Your task to perform on an android device: Do I have any events this weekend? Image 0: 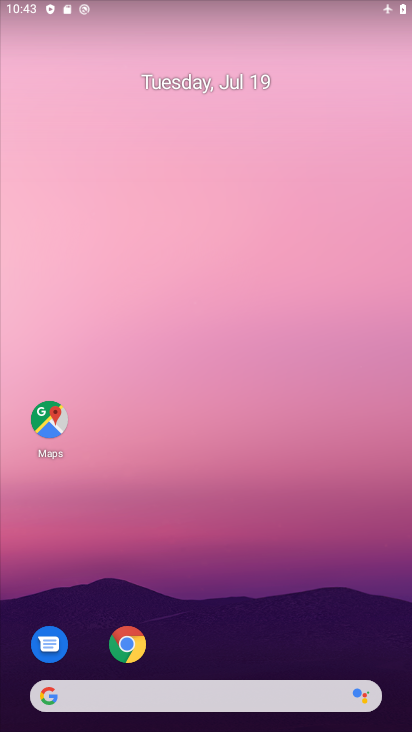
Step 0: drag from (267, 600) to (217, 105)
Your task to perform on an android device: Do I have any events this weekend? Image 1: 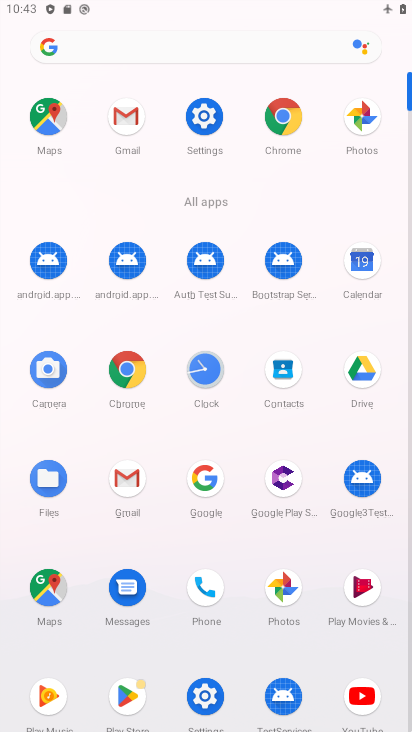
Step 1: click (360, 258)
Your task to perform on an android device: Do I have any events this weekend? Image 2: 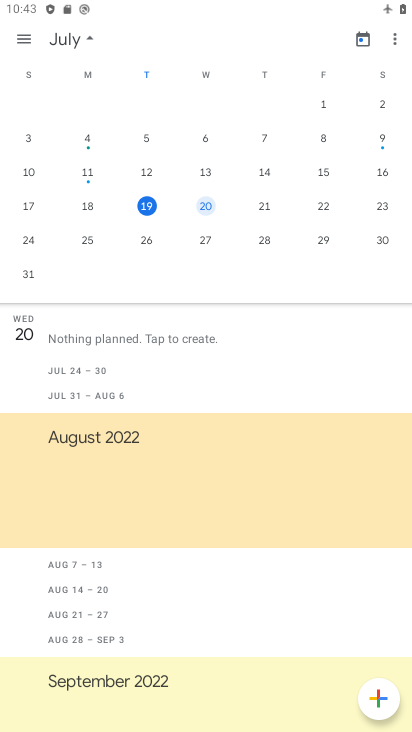
Step 2: click (21, 33)
Your task to perform on an android device: Do I have any events this weekend? Image 3: 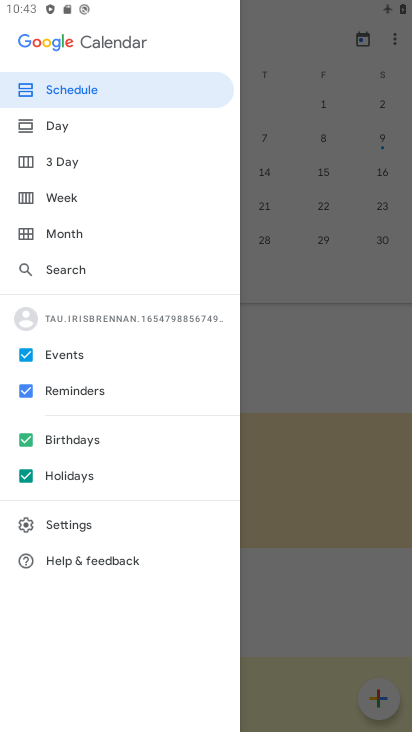
Step 3: click (59, 196)
Your task to perform on an android device: Do I have any events this weekend? Image 4: 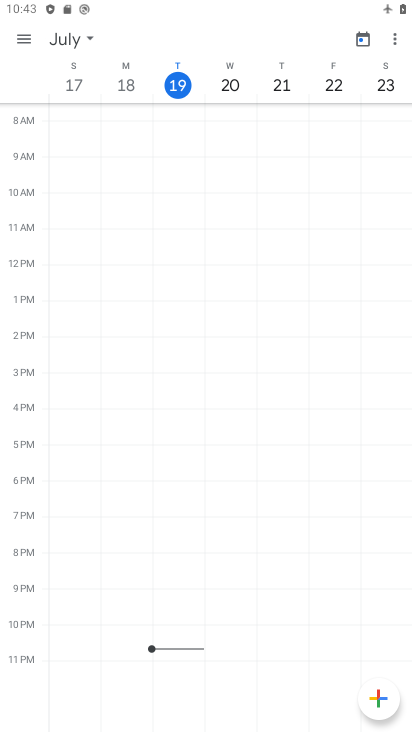
Step 4: task complete